Your task to perform on an android device: What is the capital of Spain? Image 0: 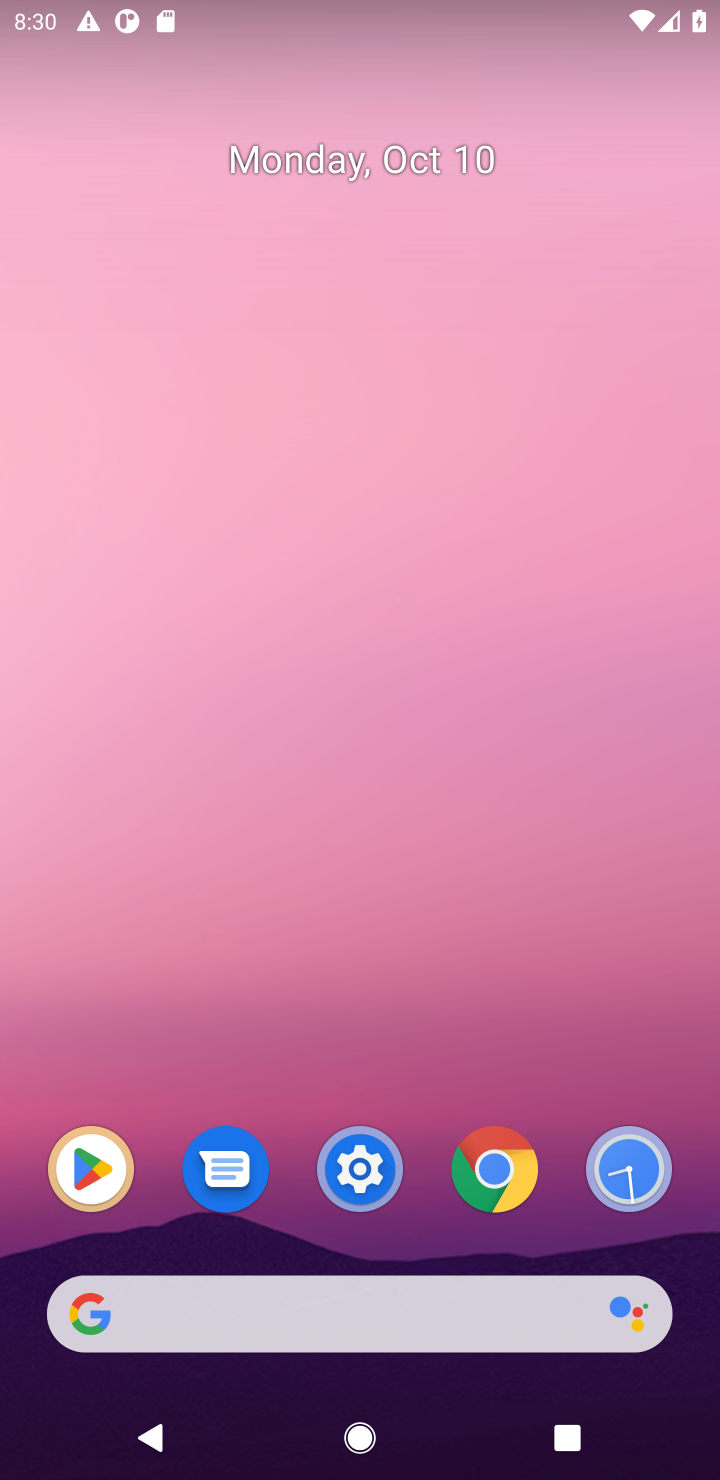
Step 0: click (505, 1191)
Your task to perform on an android device: What is the capital of Spain? Image 1: 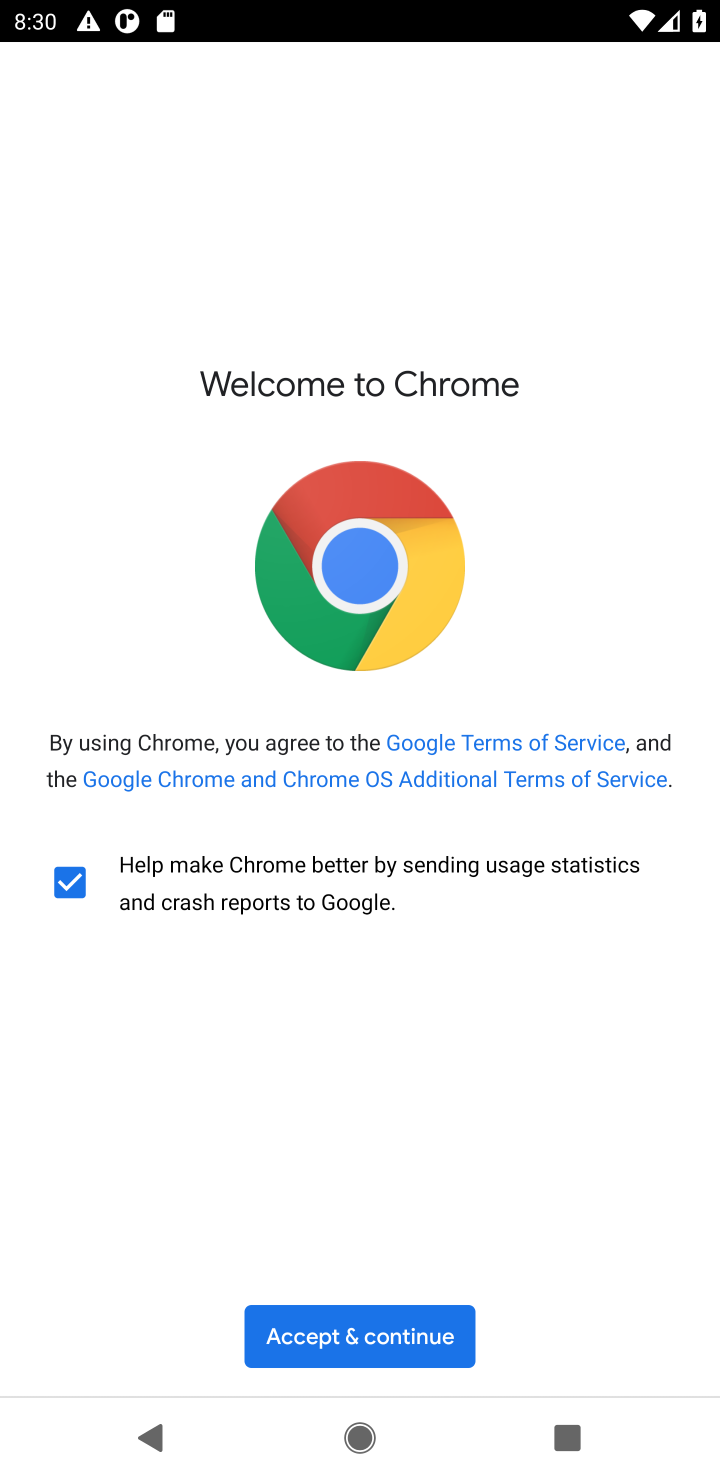
Step 1: click (340, 1344)
Your task to perform on an android device: What is the capital of Spain? Image 2: 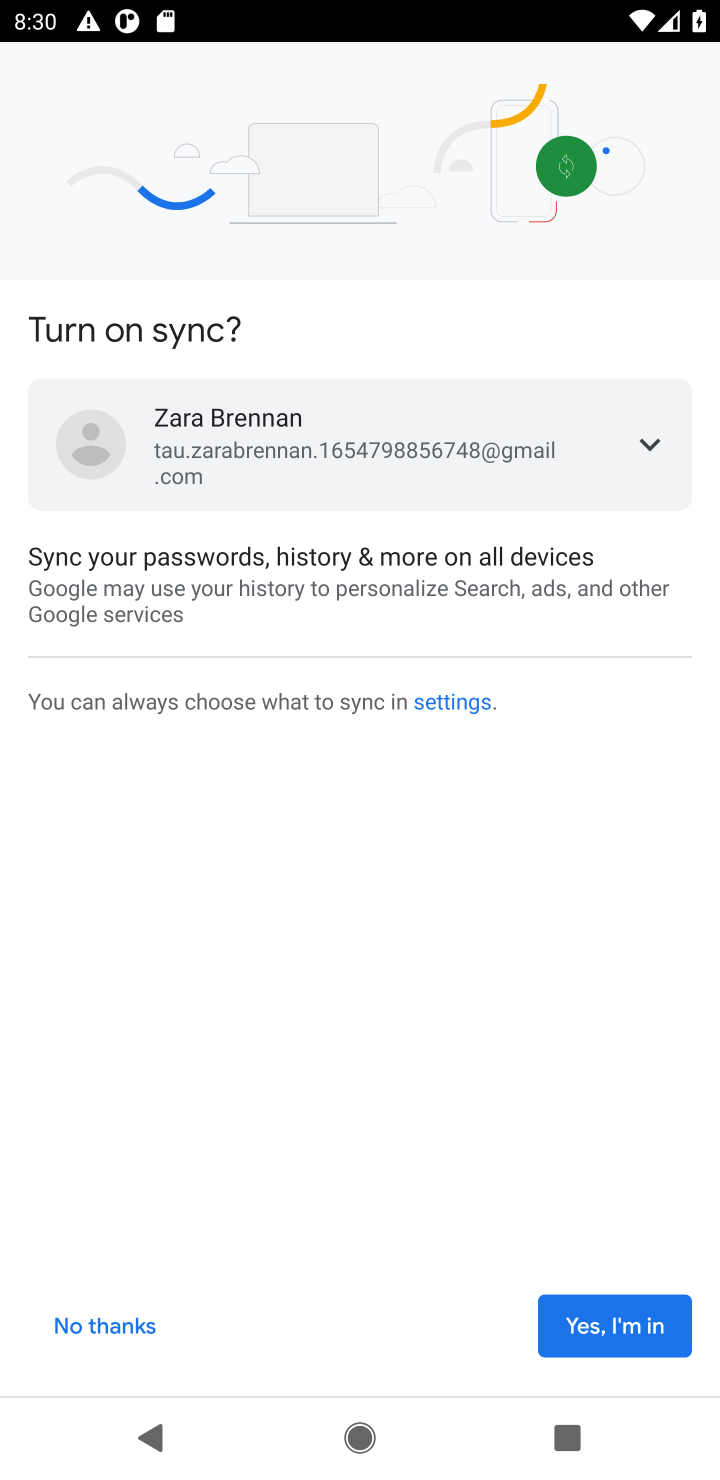
Step 2: click (89, 1324)
Your task to perform on an android device: What is the capital of Spain? Image 3: 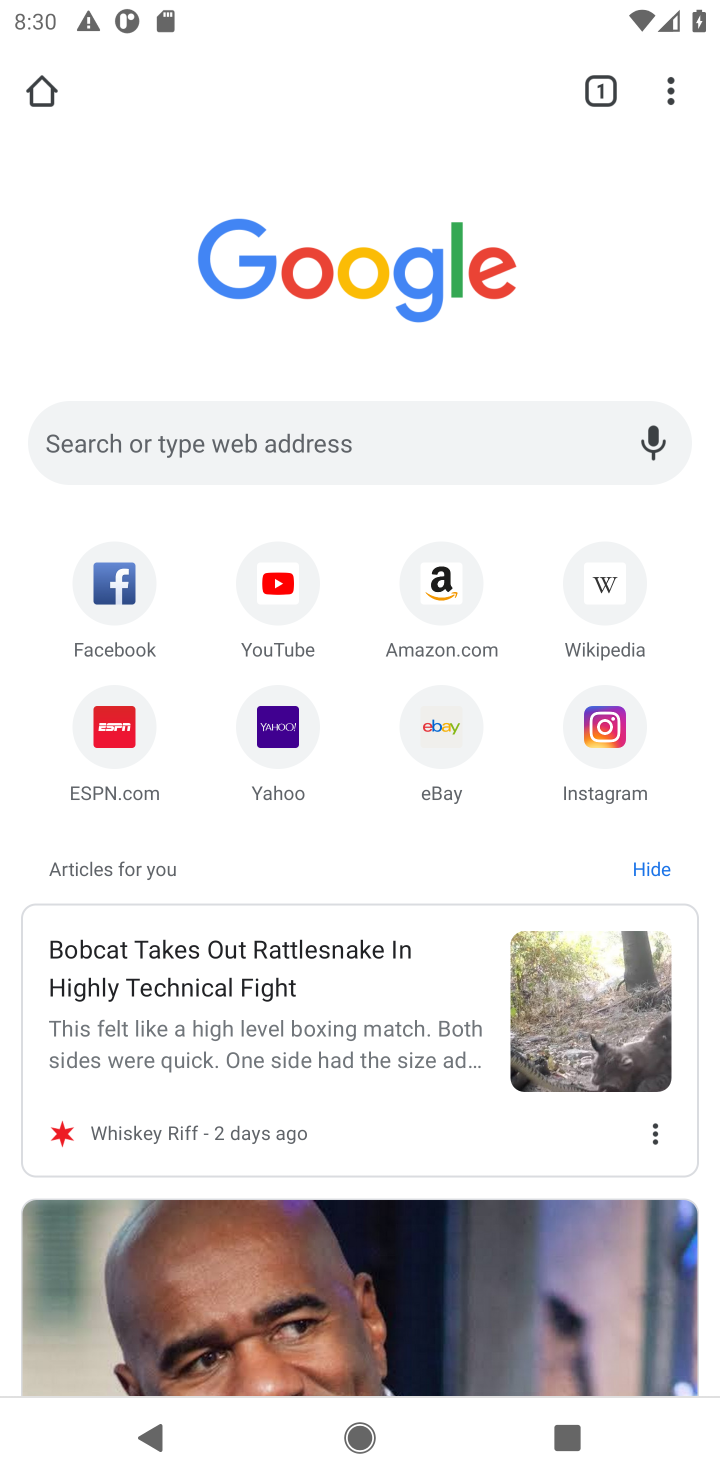
Step 3: click (153, 425)
Your task to perform on an android device: What is the capital of Spain? Image 4: 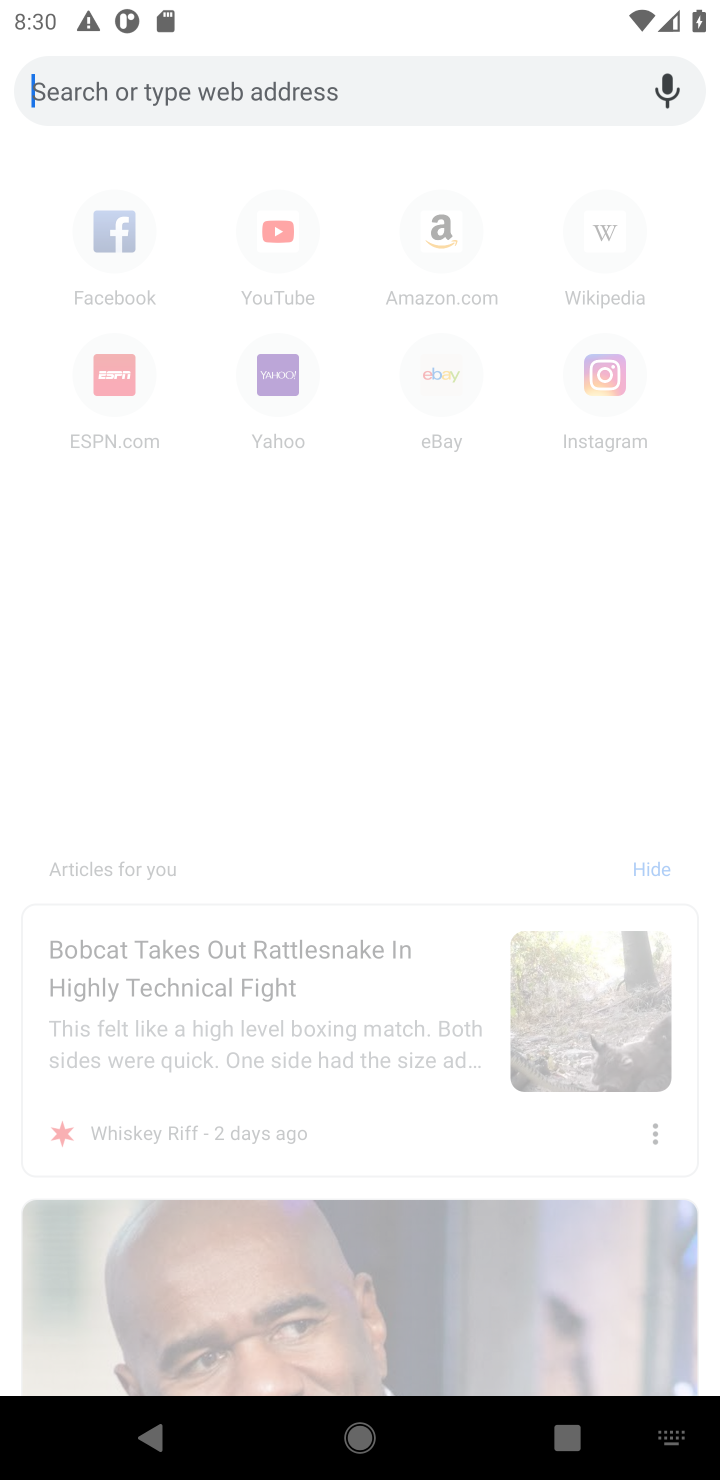
Step 4: type "capital of Spain"
Your task to perform on an android device: What is the capital of Spain? Image 5: 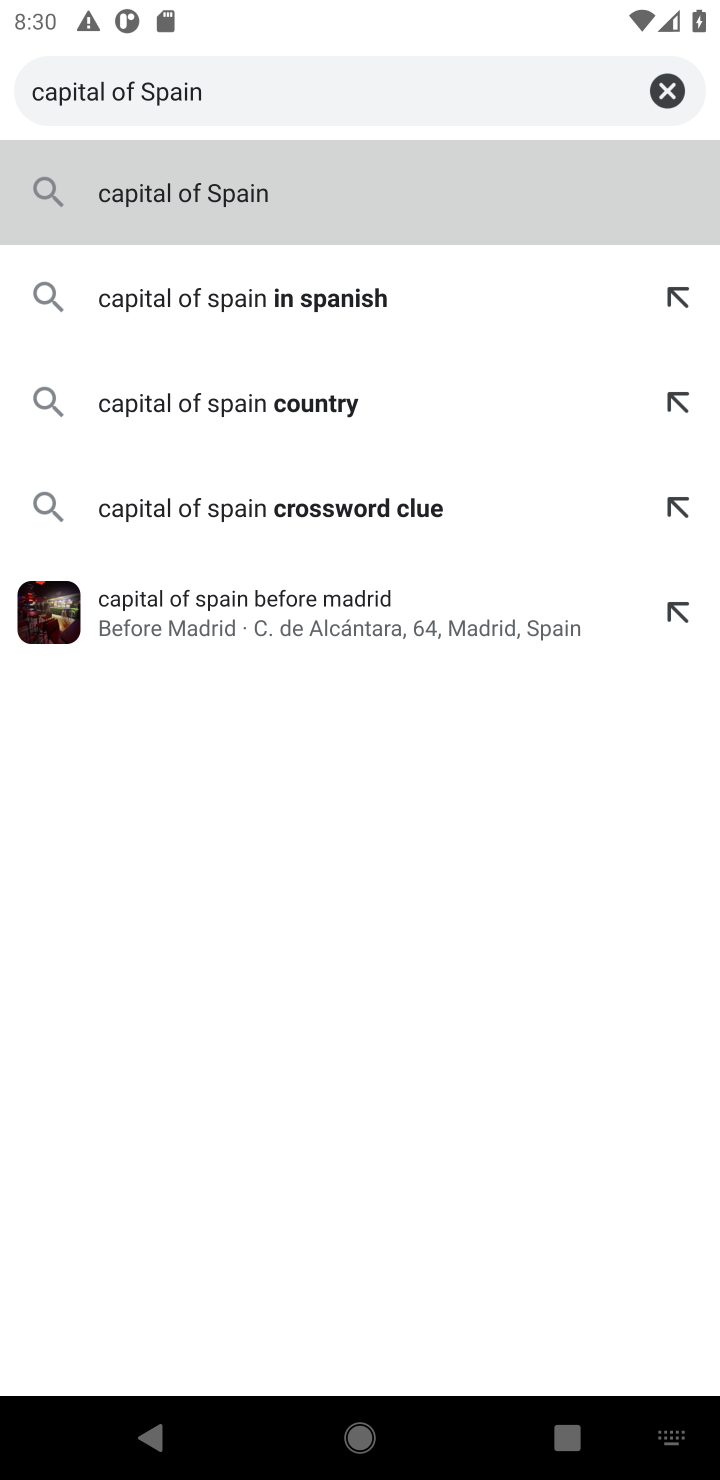
Step 5: press enter
Your task to perform on an android device: What is the capital of Spain? Image 6: 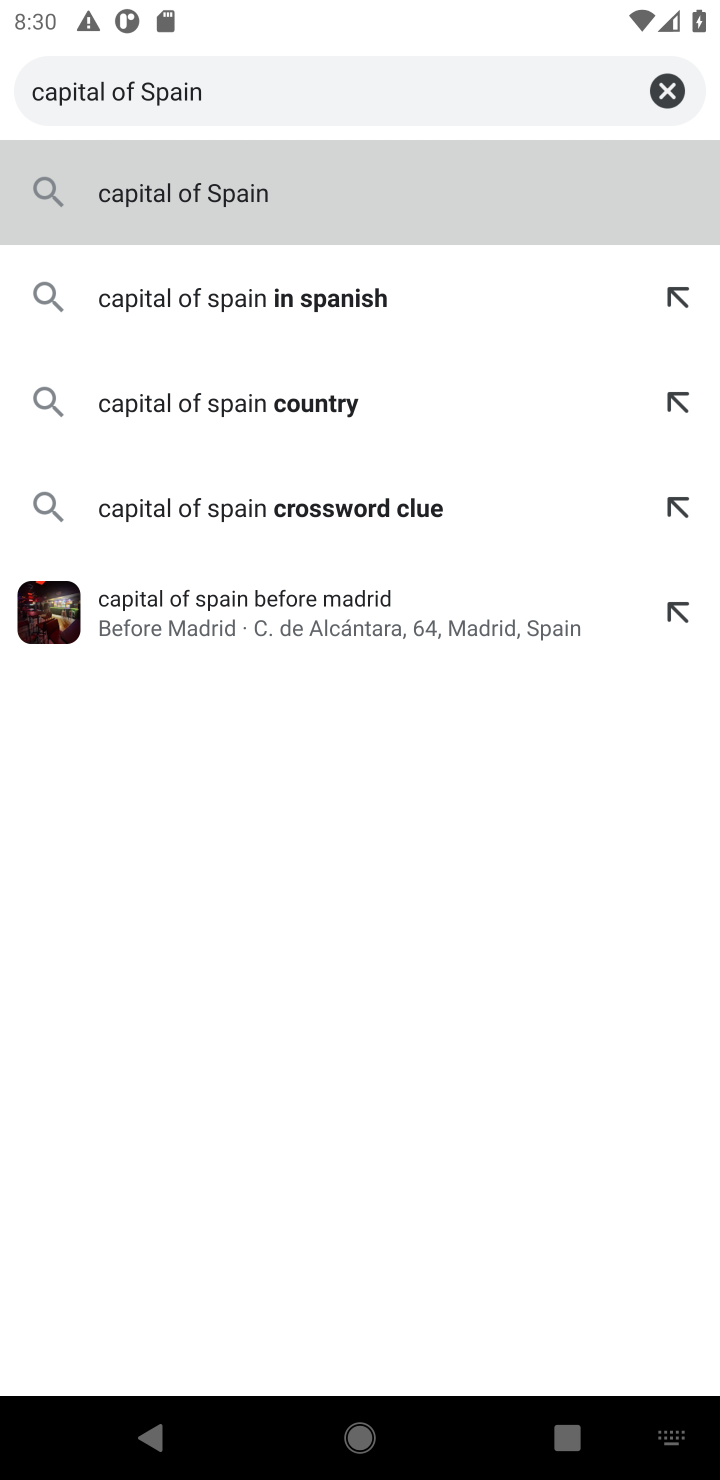
Step 6: type ""
Your task to perform on an android device: What is the capital of Spain? Image 7: 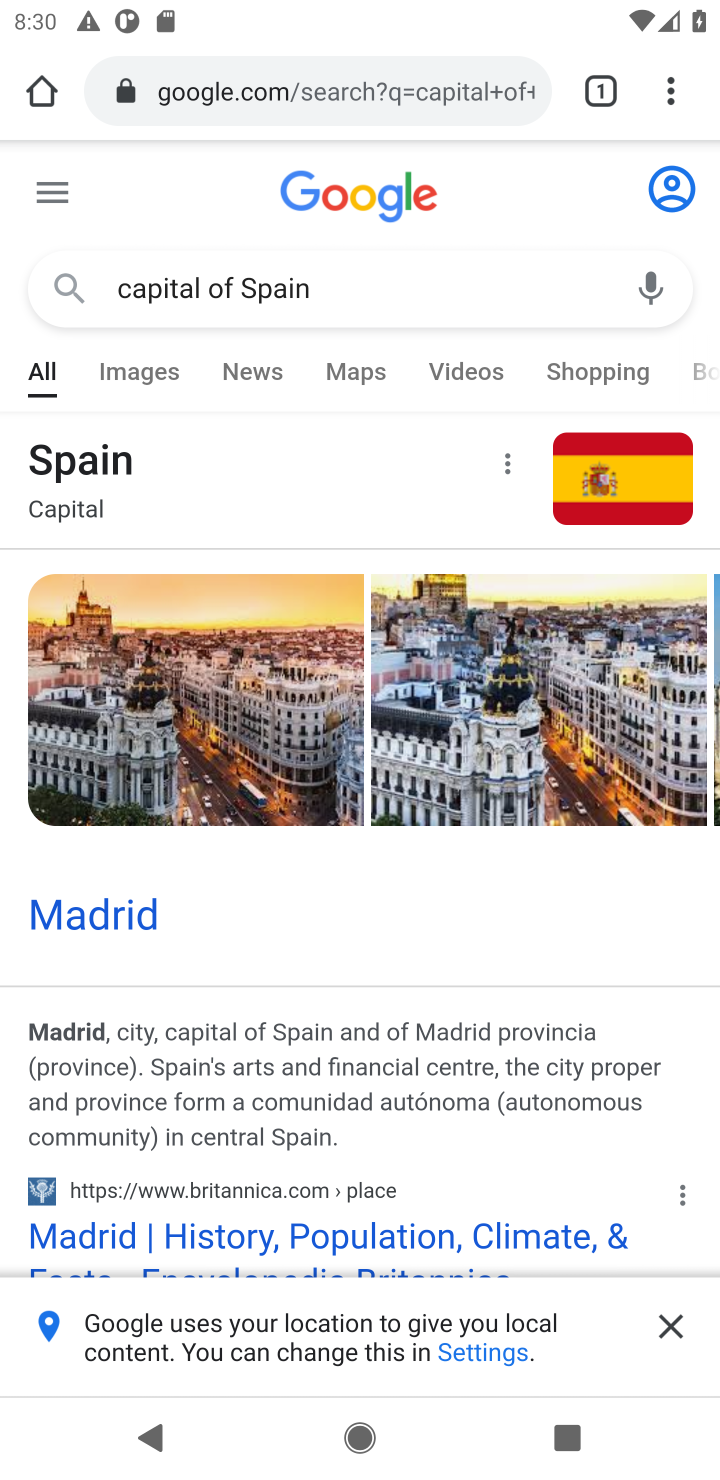
Step 7: task complete